Your task to perform on an android device: Open Yahoo.com Image 0: 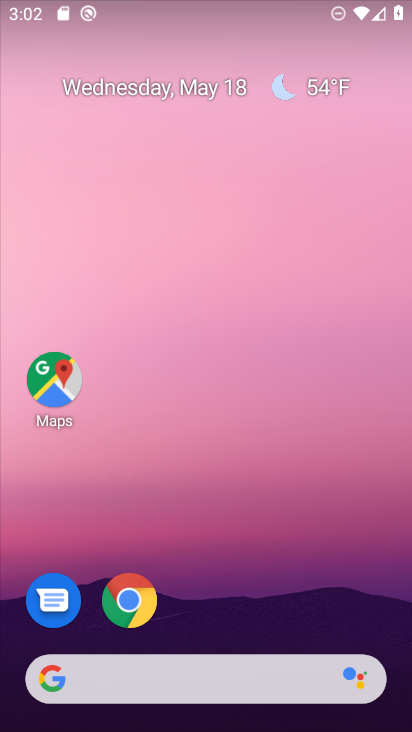
Step 0: click (129, 601)
Your task to perform on an android device: Open Yahoo.com Image 1: 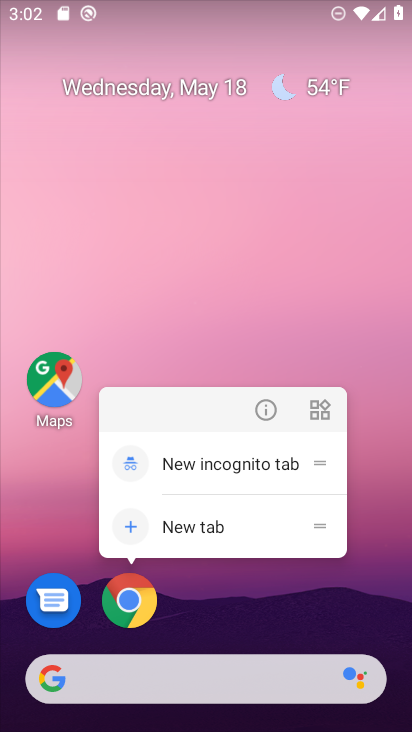
Step 1: click (126, 605)
Your task to perform on an android device: Open Yahoo.com Image 2: 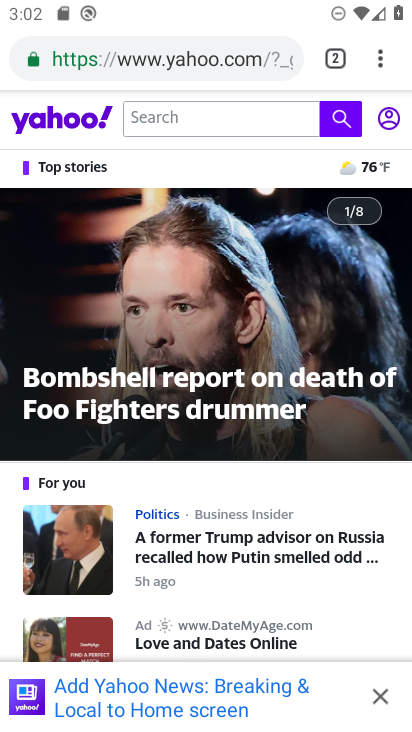
Step 2: task complete